Your task to perform on an android device: Open wifi settings Image 0: 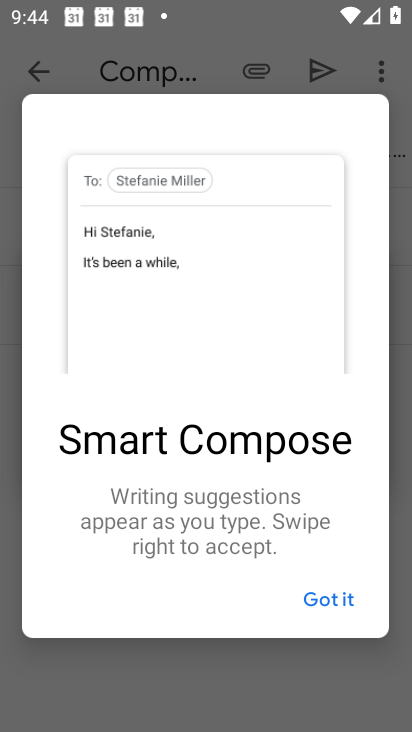
Step 0: press home button
Your task to perform on an android device: Open wifi settings Image 1: 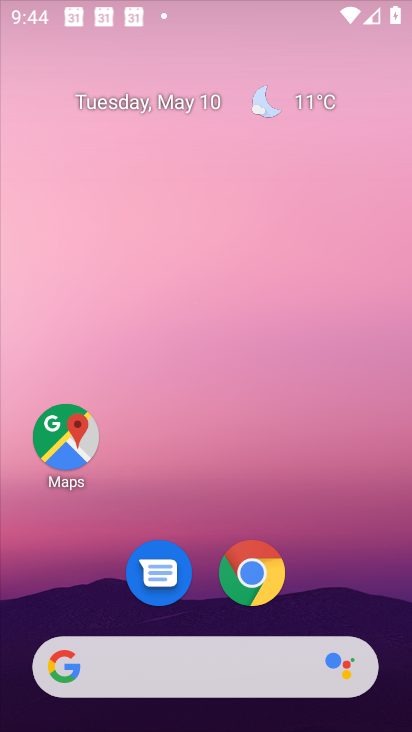
Step 1: drag from (317, 547) to (311, 179)
Your task to perform on an android device: Open wifi settings Image 2: 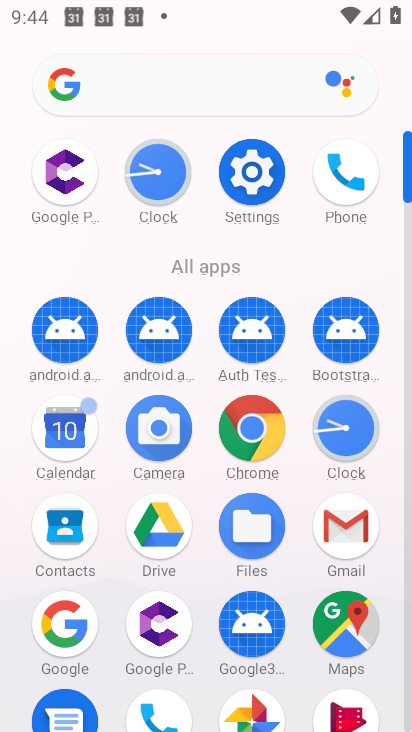
Step 2: click (252, 173)
Your task to perform on an android device: Open wifi settings Image 3: 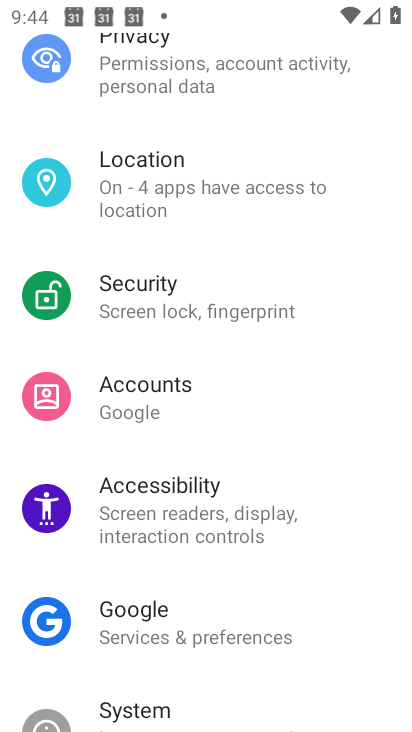
Step 3: drag from (290, 318) to (314, 621)
Your task to perform on an android device: Open wifi settings Image 4: 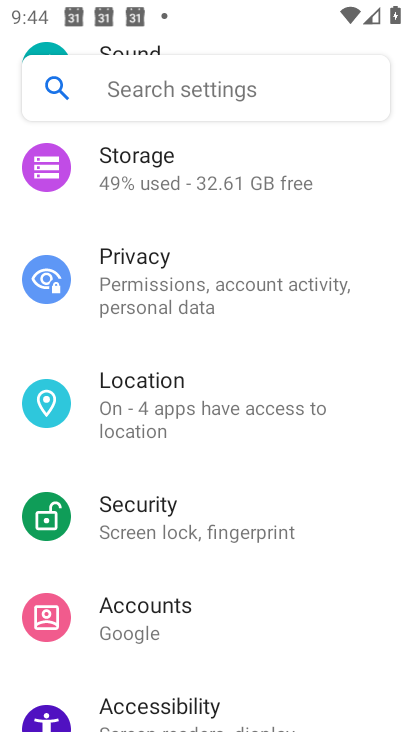
Step 4: drag from (301, 203) to (275, 616)
Your task to perform on an android device: Open wifi settings Image 5: 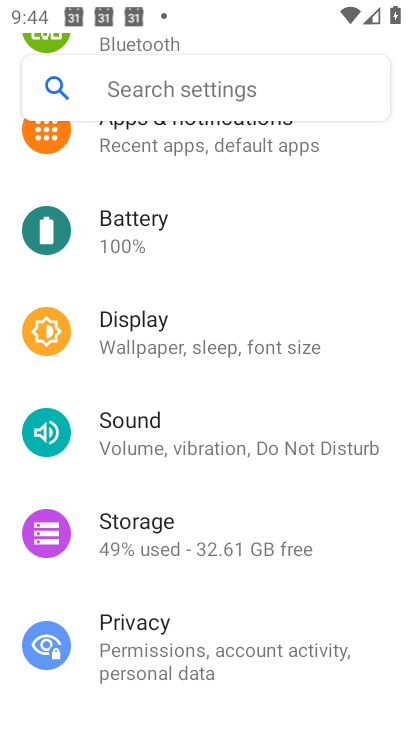
Step 5: drag from (256, 251) to (238, 633)
Your task to perform on an android device: Open wifi settings Image 6: 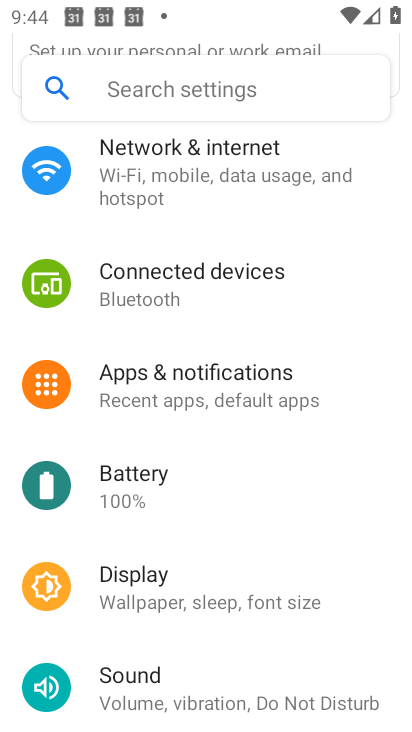
Step 6: drag from (269, 194) to (263, 243)
Your task to perform on an android device: Open wifi settings Image 7: 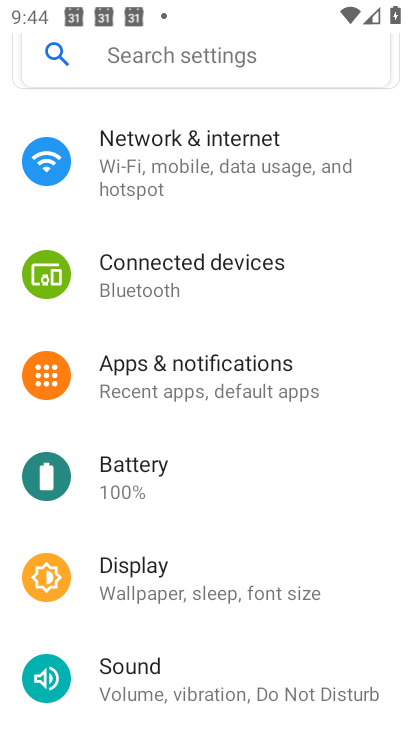
Step 7: click (265, 224)
Your task to perform on an android device: Open wifi settings Image 8: 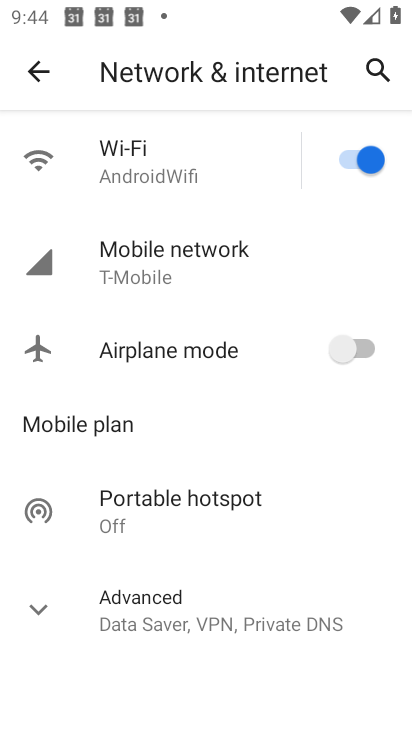
Step 8: click (221, 176)
Your task to perform on an android device: Open wifi settings Image 9: 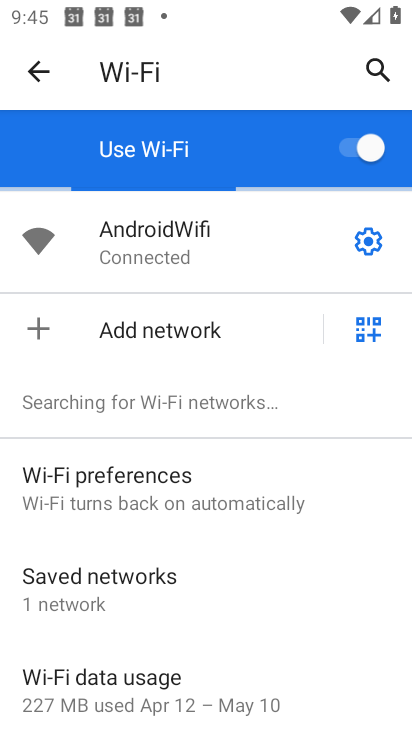
Step 9: task complete